Your task to perform on an android device: Open Google Chrome Image 0: 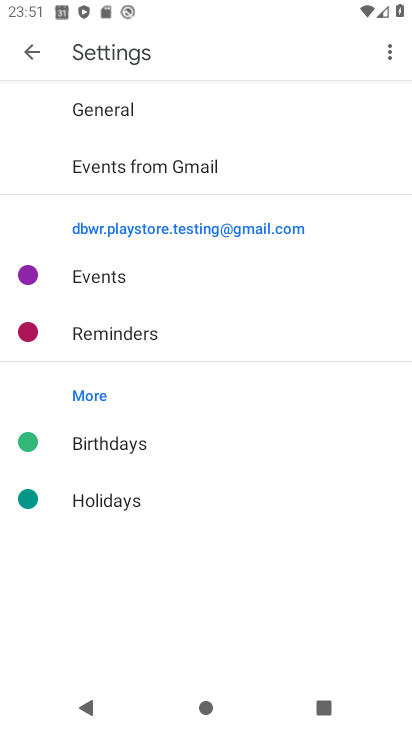
Step 0: press back button
Your task to perform on an android device: Open Google Chrome Image 1: 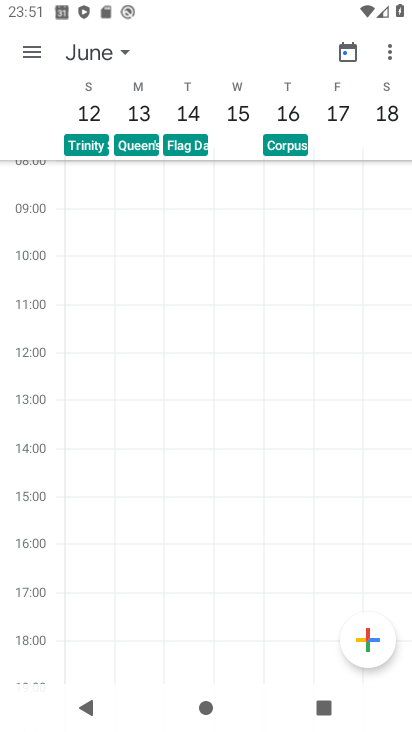
Step 1: press back button
Your task to perform on an android device: Open Google Chrome Image 2: 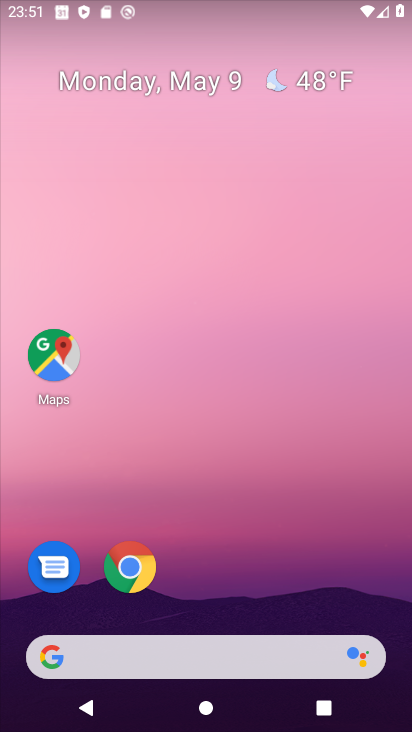
Step 2: click (129, 568)
Your task to perform on an android device: Open Google Chrome Image 3: 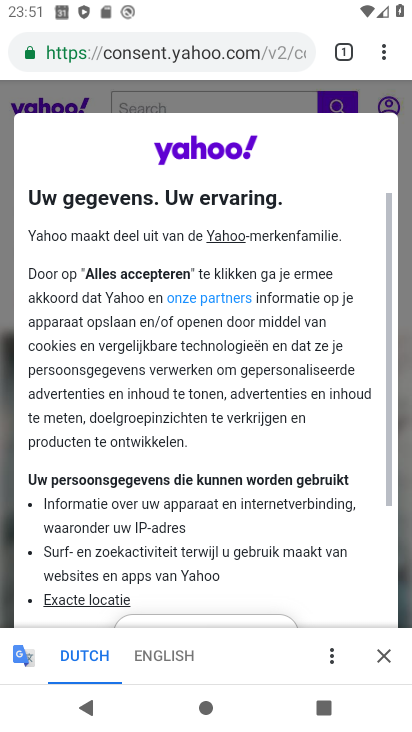
Step 3: task complete